Your task to perform on an android device: Go to Android settings Image 0: 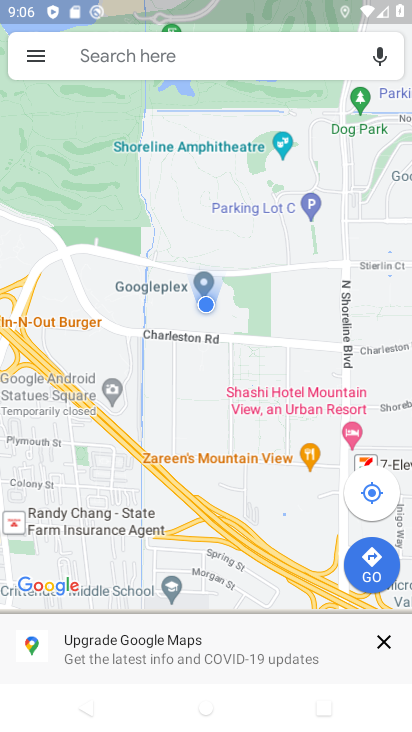
Step 0: press home button
Your task to perform on an android device: Go to Android settings Image 1: 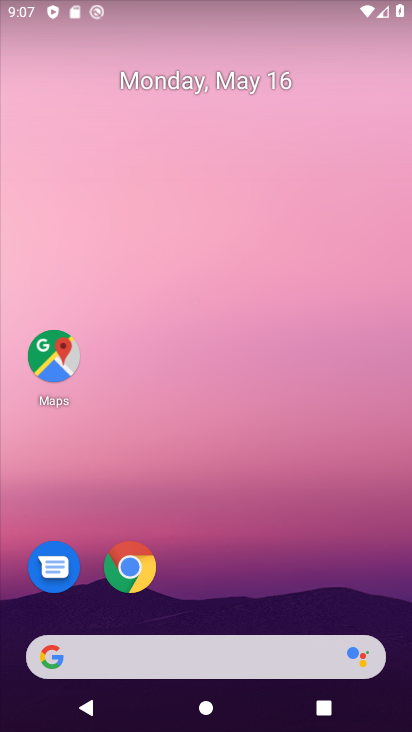
Step 1: drag from (202, 599) to (64, 59)
Your task to perform on an android device: Go to Android settings Image 2: 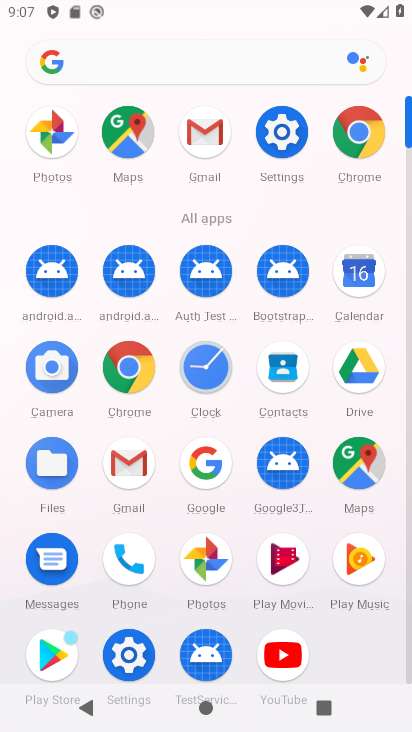
Step 2: click (286, 141)
Your task to perform on an android device: Go to Android settings Image 3: 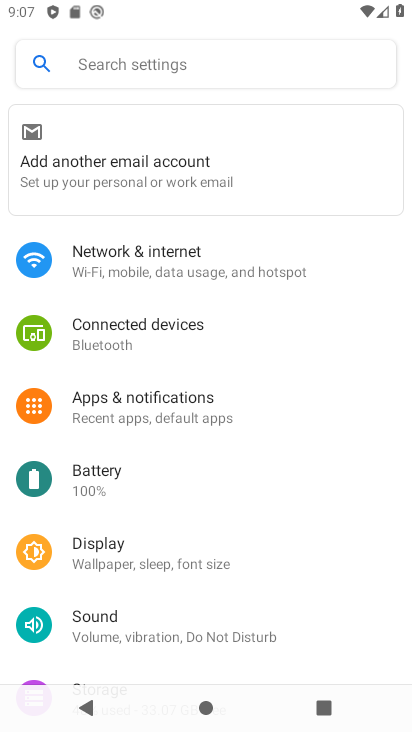
Step 3: drag from (361, 630) to (275, 18)
Your task to perform on an android device: Go to Android settings Image 4: 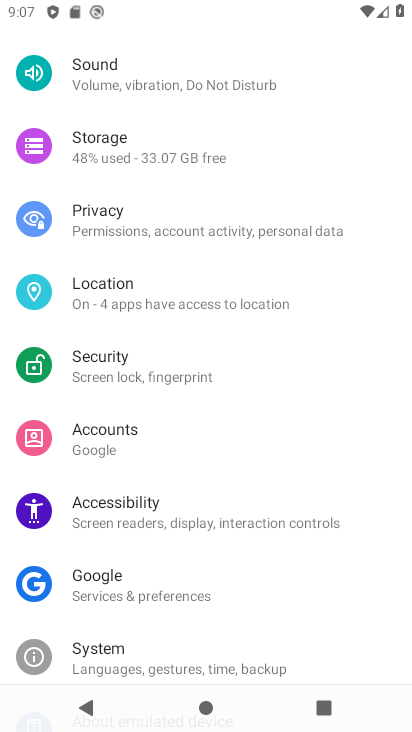
Step 4: drag from (327, 623) to (321, 257)
Your task to perform on an android device: Go to Android settings Image 5: 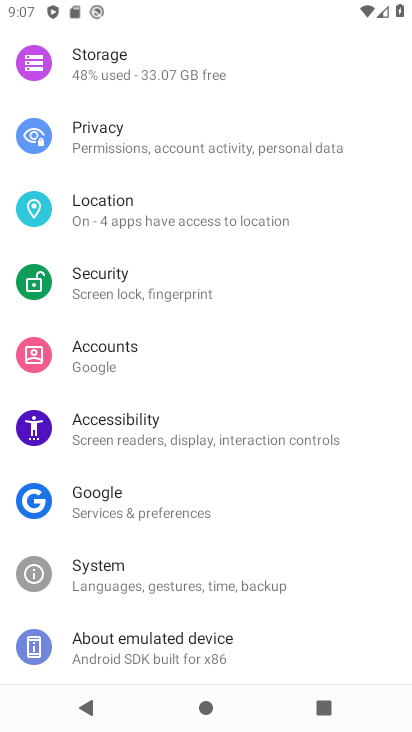
Step 5: click (198, 656)
Your task to perform on an android device: Go to Android settings Image 6: 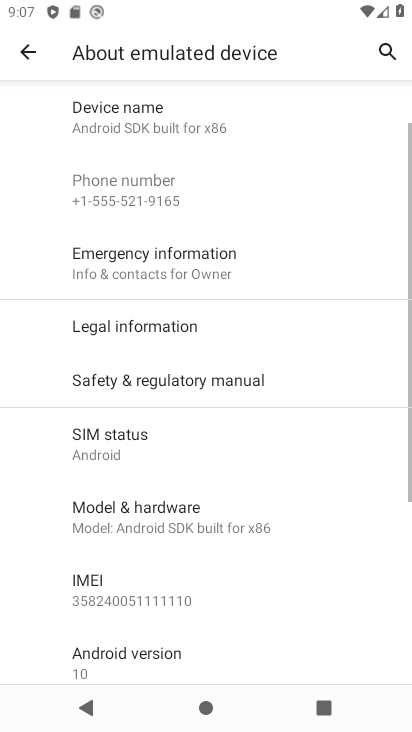
Step 6: click (147, 661)
Your task to perform on an android device: Go to Android settings Image 7: 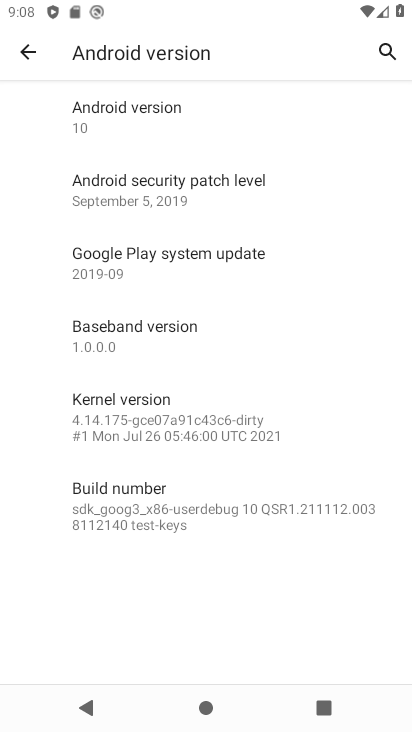
Step 7: task complete